Your task to perform on an android device: What's the weather like in San Francisco? Image 0: 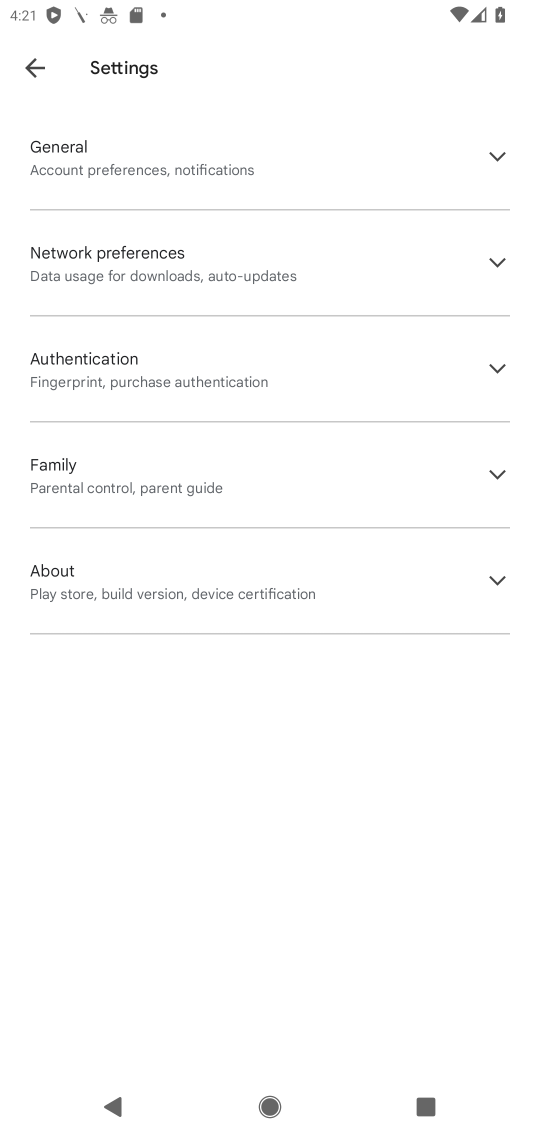
Step 0: press home button
Your task to perform on an android device: What's the weather like in San Francisco? Image 1: 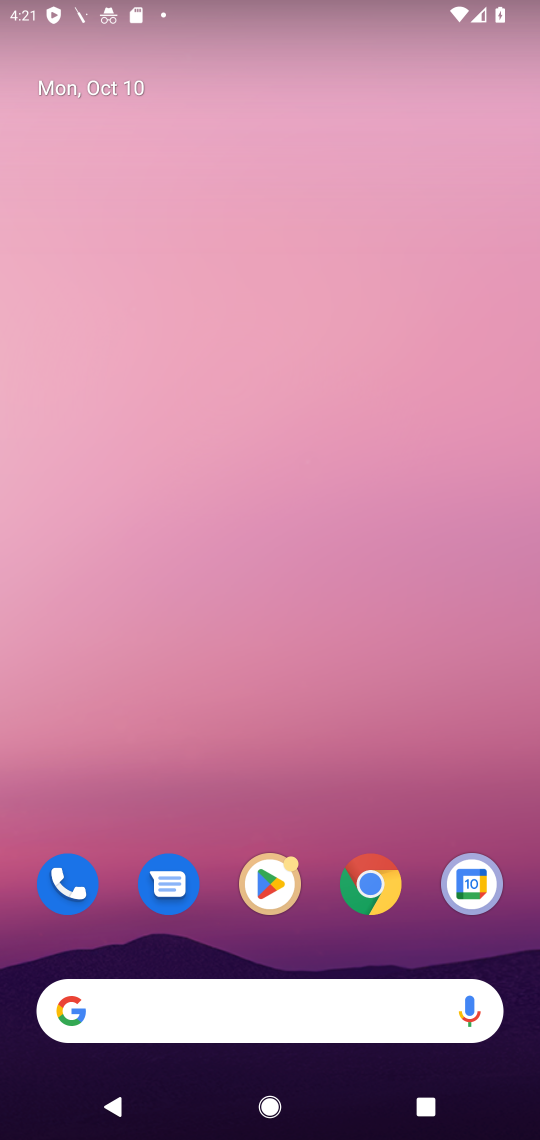
Step 1: click (260, 992)
Your task to perform on an android device: What's the weather like in San Francisco? Image 2: 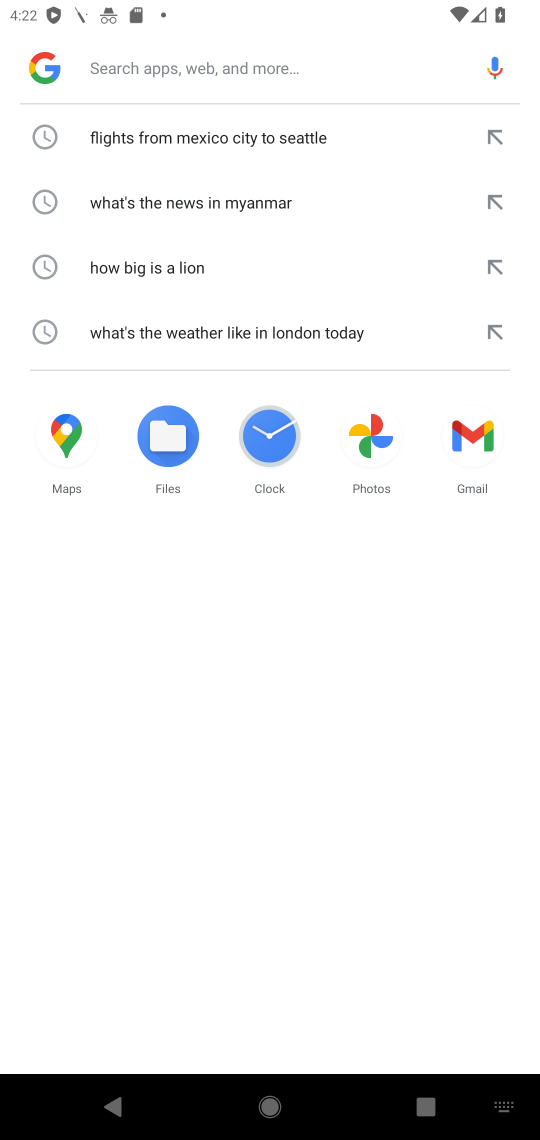
Step 2: type "What's the weather like in San Francisco?"
Your task to perform on an android device: What's the weather like in San Francisco? Image 3: 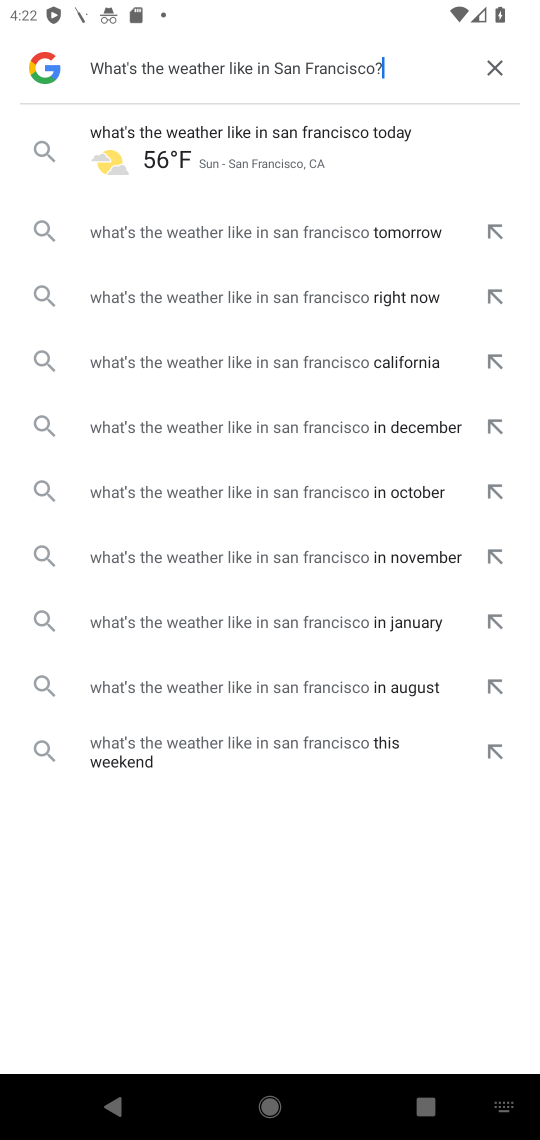
Step 3: click (209, 134)
Your task to perform on an android device: What's the weather like in San Francisco? Image 4: 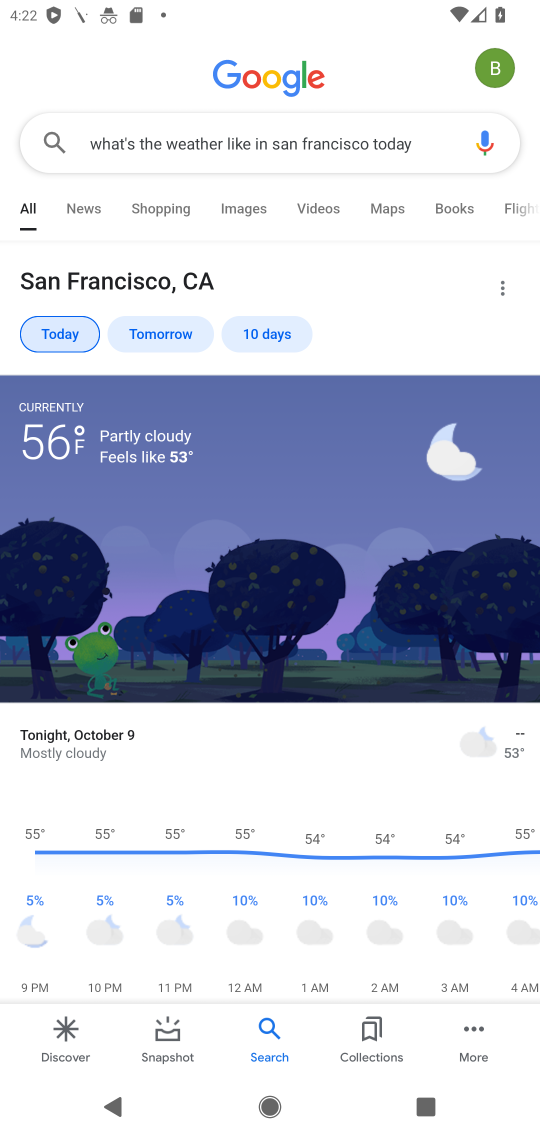
Step 4: task complete